Your task to perform on an android device: turn off javascript in the chrome app Image 0: 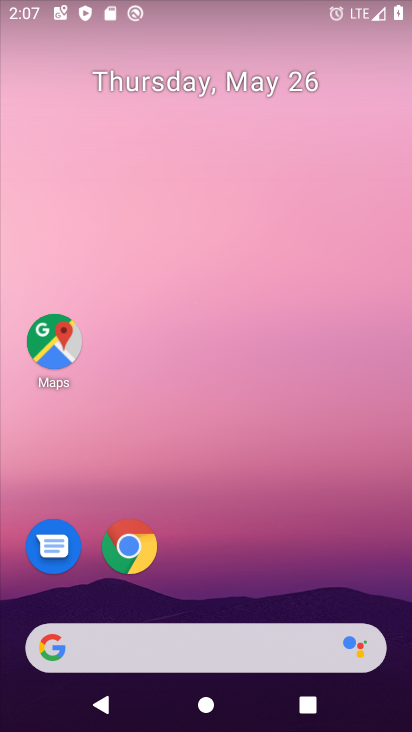
Step 0: click (145, 540)
Your task to perform on an android device: turn off javascript in the chrome app Image 1: 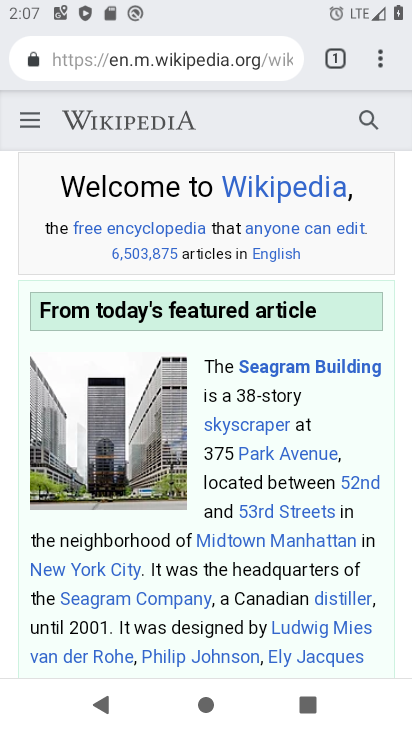
Step 1: click (373, 55)
Your task to perform on an android device: turn off javascript in the chrome app Image 2: 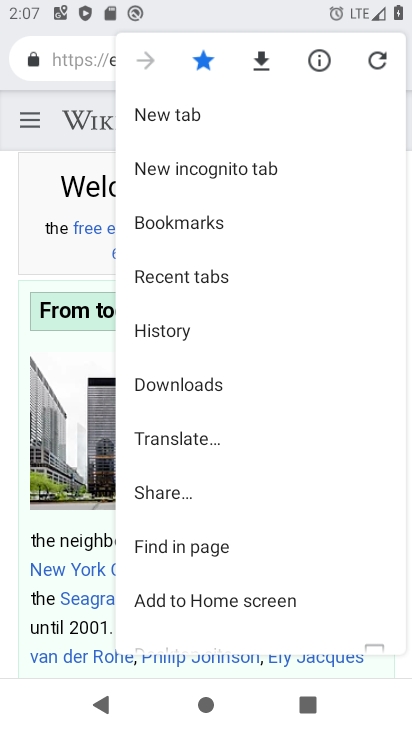
Step 2: drag from (247, 475) to (296, 202)
Your task to perform on an android device: turn off javascript in the chrome app Image 3: 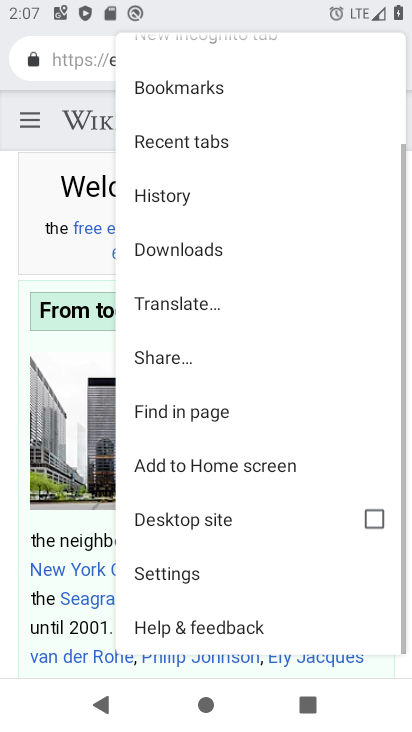
Step 3: click (196, 579)
Your task to perform on an android device: turn off javascript in the chrome app Image 4: 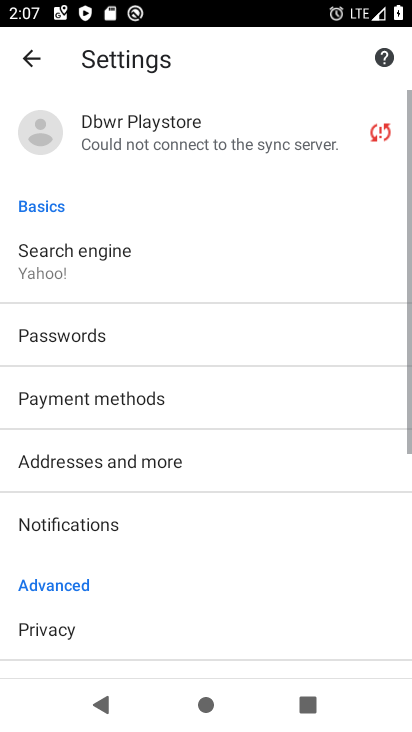
Step 4: drag from (171, 581) to (309, 210)
Your task to perform on an android device: turn off javascript in the chrome app Image 5: 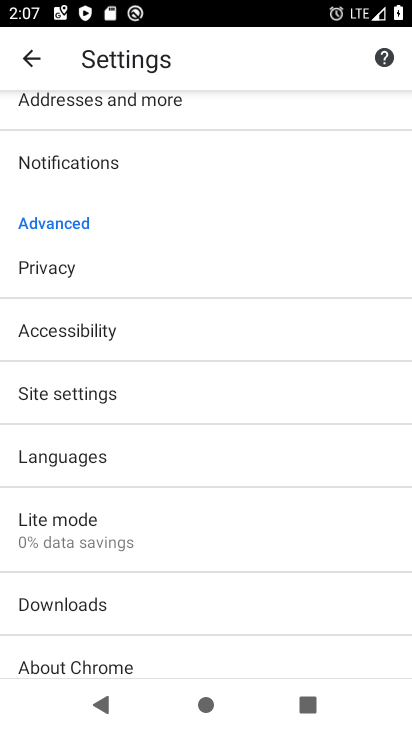
Step 5: click (85, 383)
Your task to perform on an android device: turn off javascript in the chrome app Image 6: 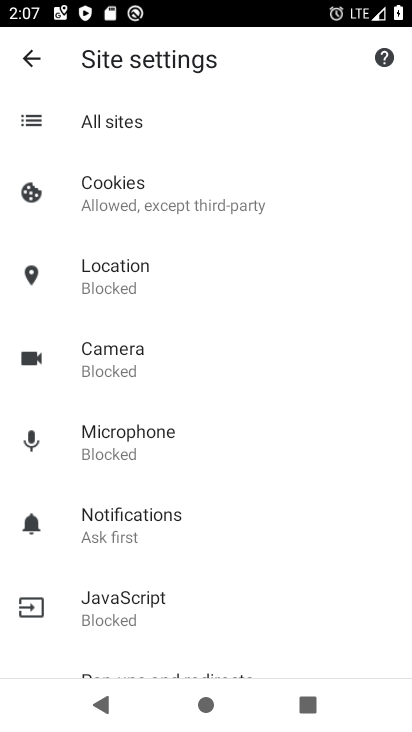
Step 6: click (135, 621)
Your task to perform on an android device: turn off javascript in the chrome app Image 7: 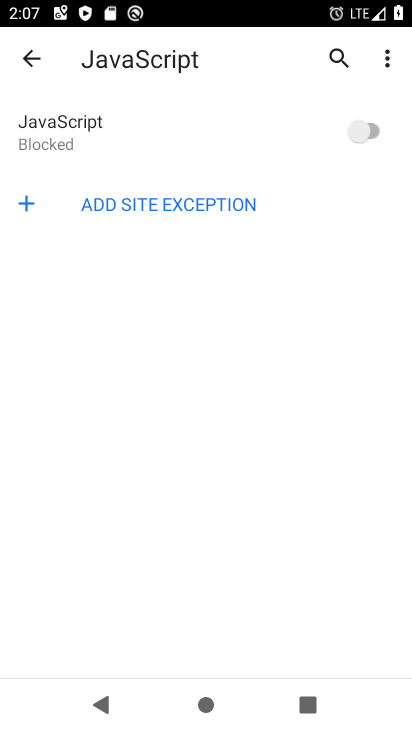
Step 7: task complete